Your task to perform on an android device: Go to eBay Image 0: 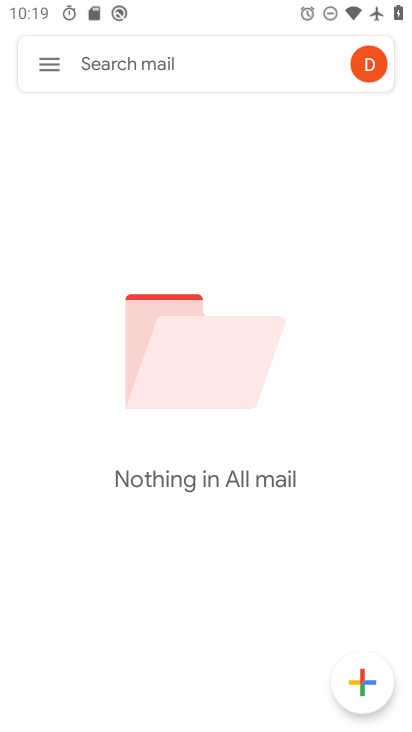
Step 0: press home button
Your task to perform on an android device: Go to eBay Image 1: 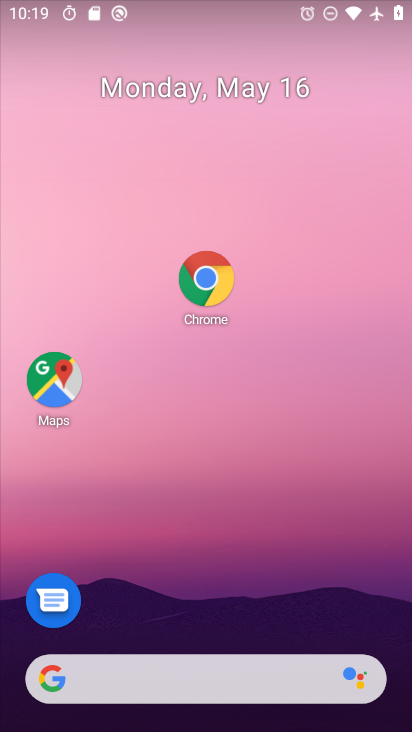
Step 1: click (209, 285)
Your task to perform on an android device: Go to eBay Image 2: 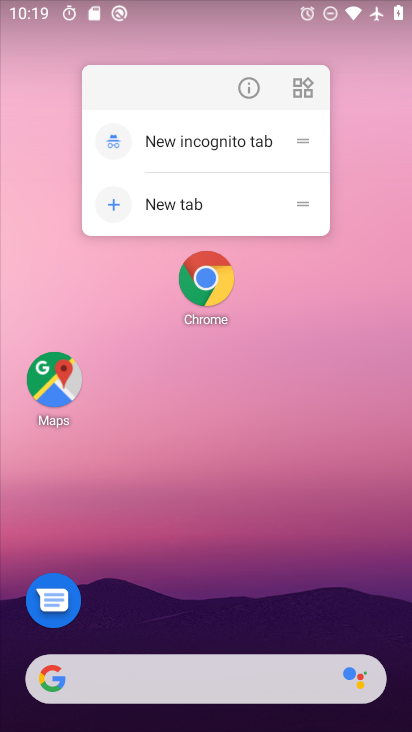
Step 2: click (215, 296)
Your task to perform on an android device: Go to eBay Image 3: 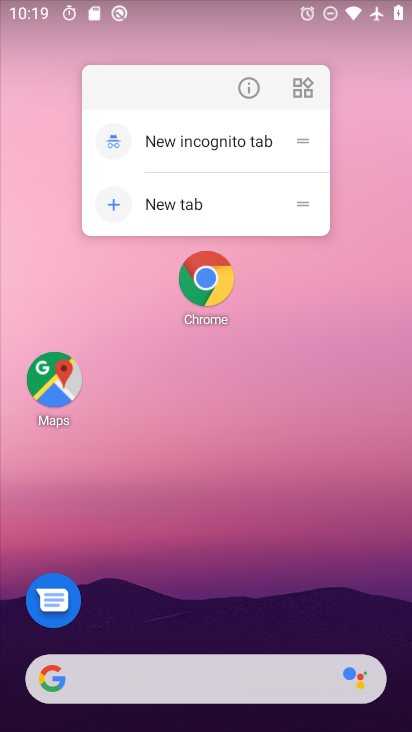
Step 3: click (200, 281)
Your task to perform on an android device: Go to eBay Image 4: 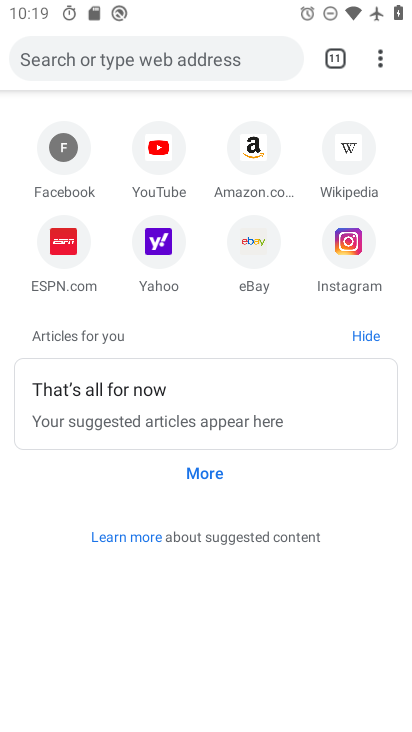
Step 4: click (253, 243)
Your task to perform on an android device: Go to eBay Image 5: 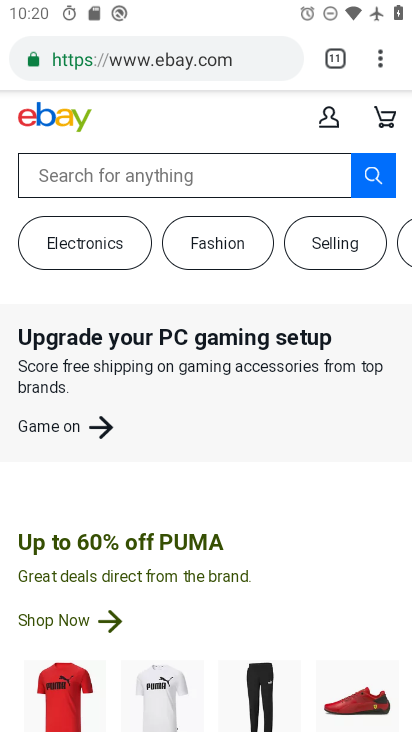
Step 5: task complete